Your task to perform on an android device: Go to accessibility settings Image 0: 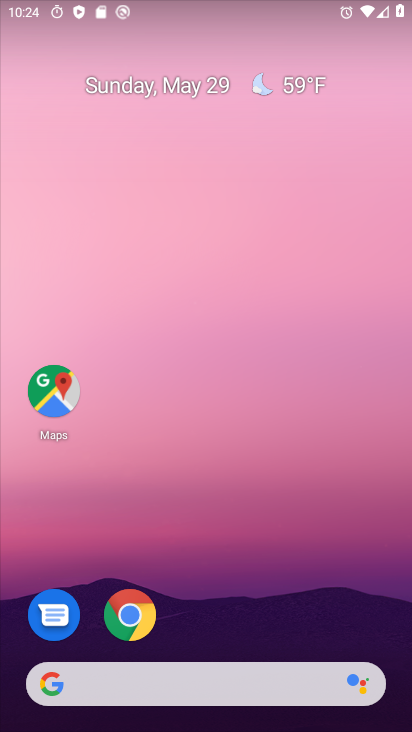
Step 0: drag from (218, 590) to (230, 67)
Your task to perform on an android device: Go to accessibility settings Image 1: 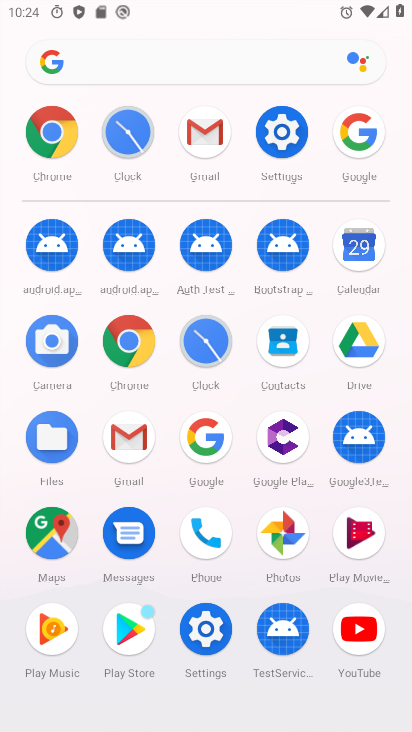
Step 1: click (275, 128)
Your task to perform on an android device: Go to accessibility settings Image 2: 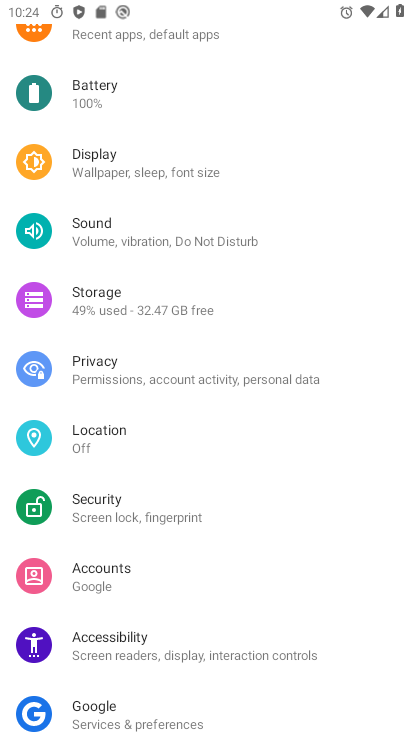
Step 2: drag from (188, 605) to (182, 106)
Your task to perform on an android device: Go to accessibility settings Image 3: 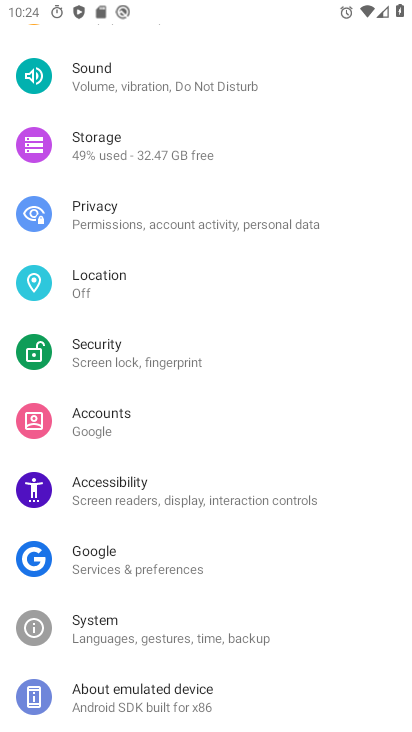
Step 3: click (110, 492)
Your task to perform on an android device: Go to accessibility settings Image 4: 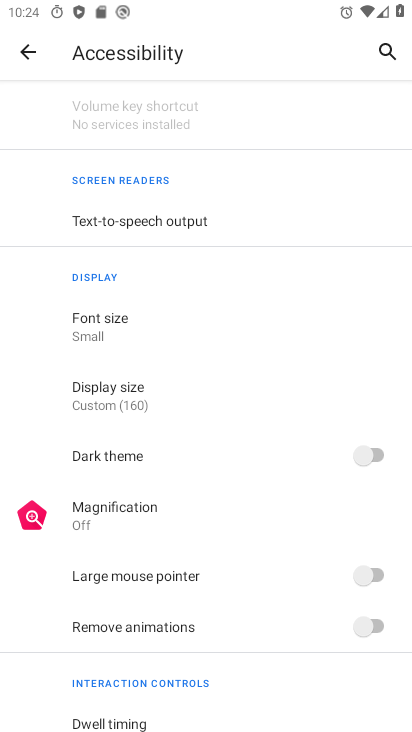
Step 4: task complete